Your task to perform on an android device: change the clock style Image 0: 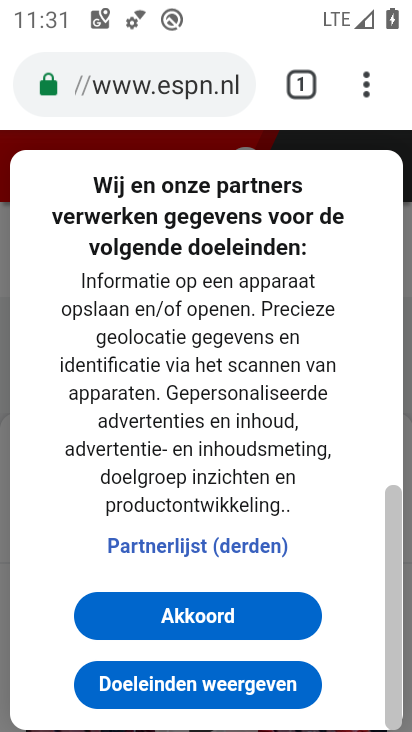
Step 0: press home button
Your task to perform on an android device: change the clock style Image 1: 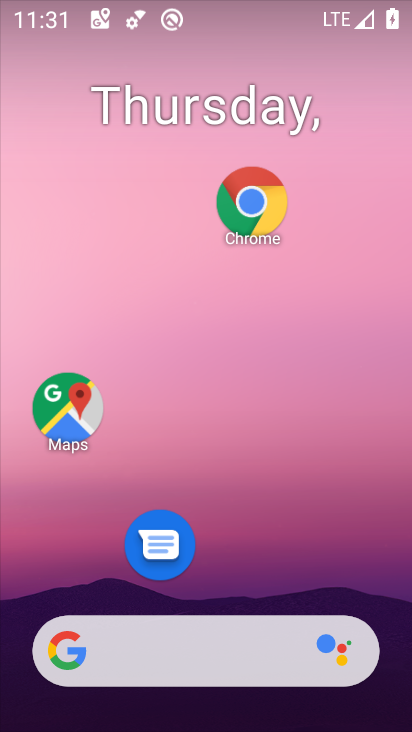
Step 1: drag from (210, 591) to (198, 41)
Your task to perform on an android device: change the clock style Image 2: 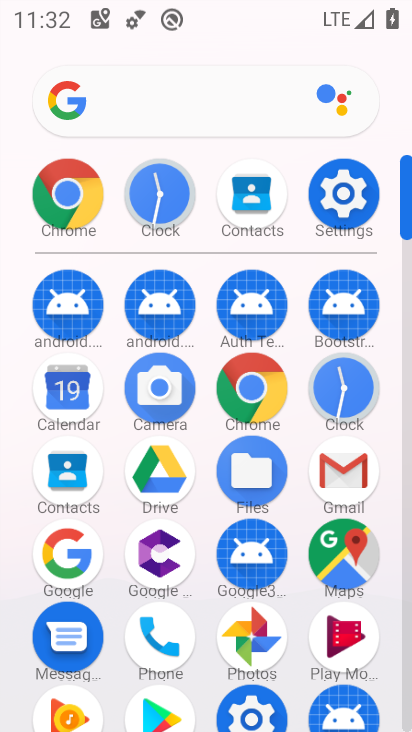
Step 2: drag from (207, 672) to (235, 250)
Your task to perform on an android device: change the clock style Image 3: 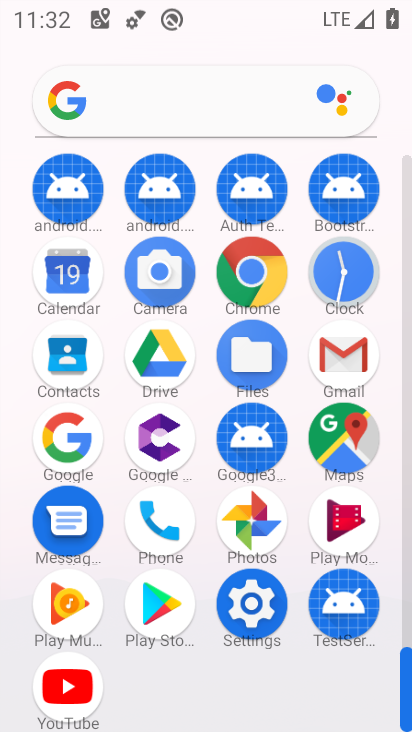
Step 3: click (343, 296)
Your task to perform on an android device: change the clock style Image 4: 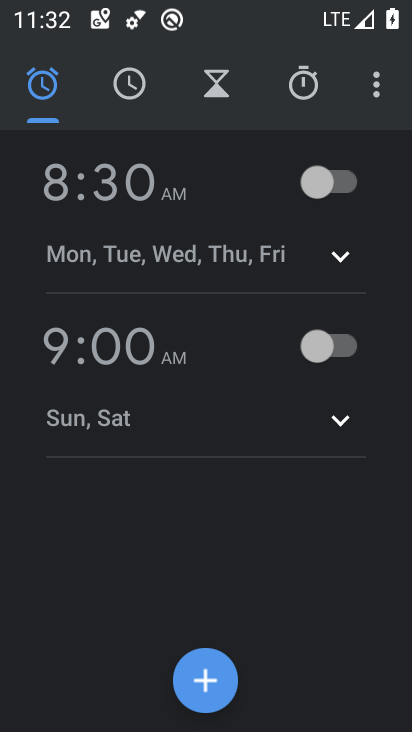
Step 4: click (375, 93)
Your task to perform on an android device: change the clock style Image 5: 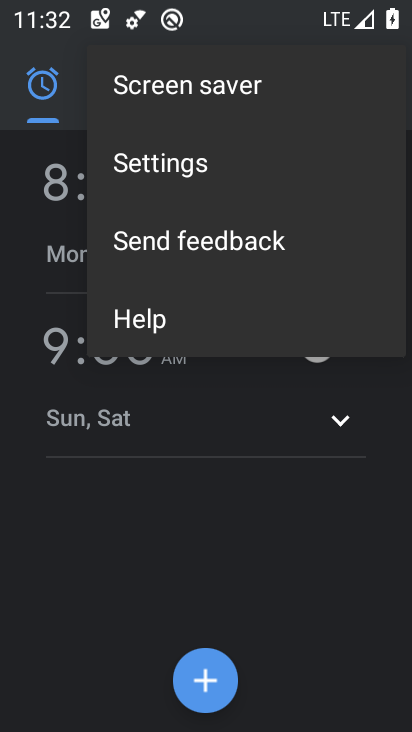
Step 5: click (198, 160)
Your task to perform on an android device: change the clock style Image 6: 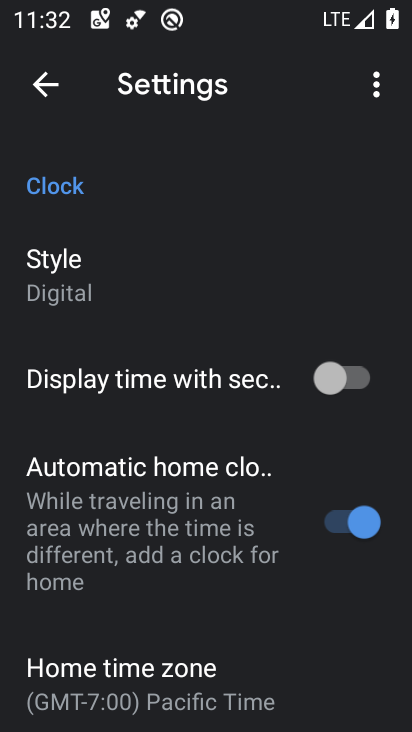
Step 6: drag from (107, 578) to (164, 426)
Your task to perform on an android device: change the clock style Image 7: 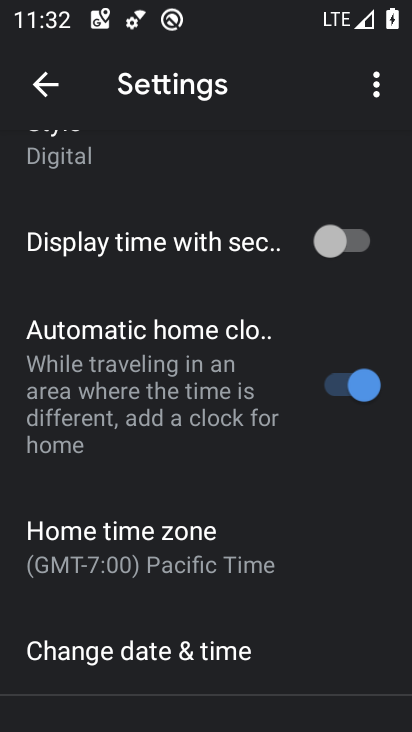
Step 7: drag from (150, 619) to (184, 348)
Your task to perform on an android device: change the clock style Image 8: 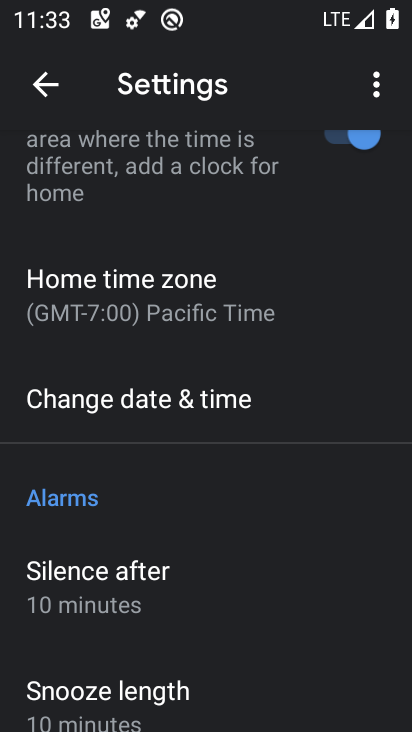
Step 8: drag from (165, 294) to (98, 644)
Your task to perform on an android device: change the clock style Image 9: 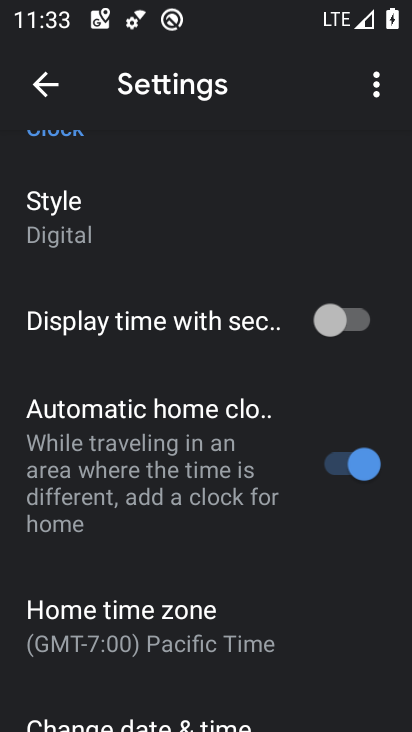
Step 9: click (84, 236)
Your task to perform on an android device: change the clock style Image 10: 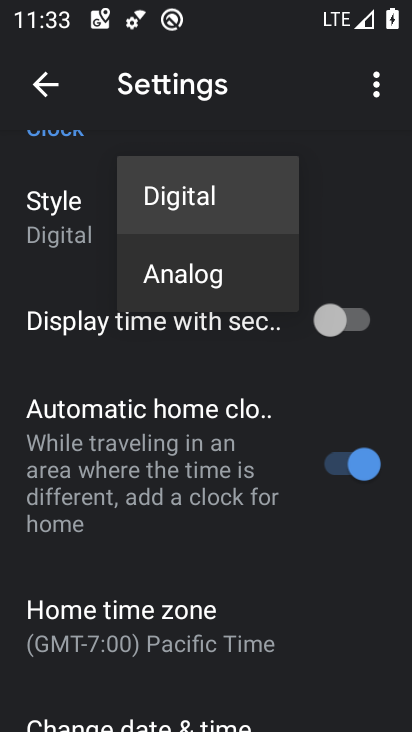
Step 10: click (195, 282)
Your task to perform on an android device: change the clock style Image 11: 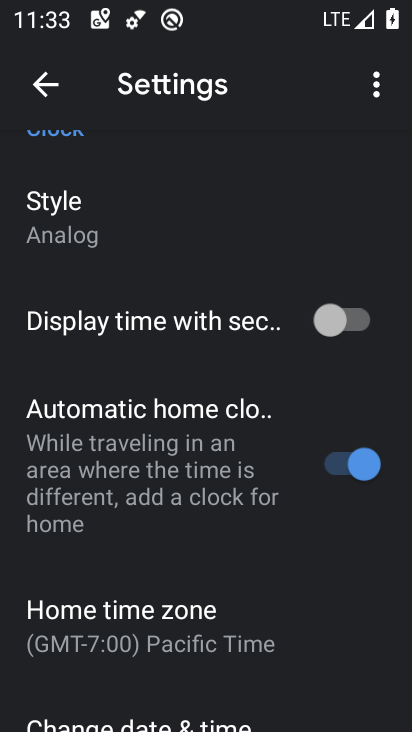
Step 11: task complete